Your task to perform on an android device: Go to wifi settings Image 0: 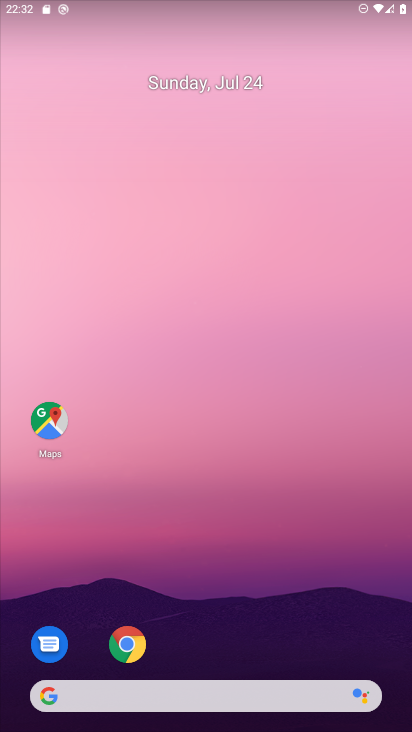
Step 0: drag from (373, 640) to (344, 46)
Your task to perform on an android device: Go to wifi settings Image 1: 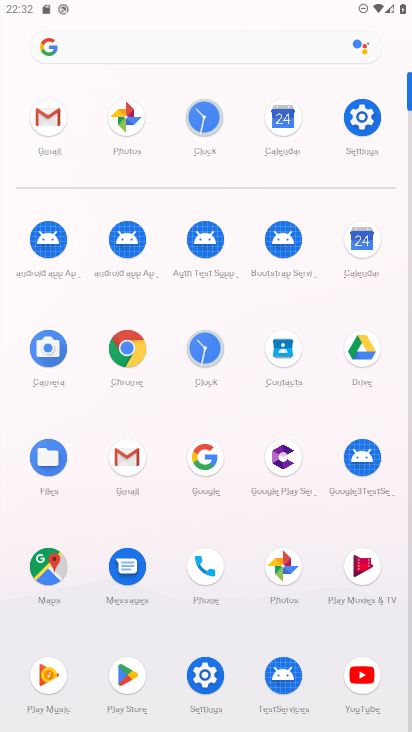
Step 1: click (208, 677)
Your task to perform on an android device: Go to wifi settings Image 2: 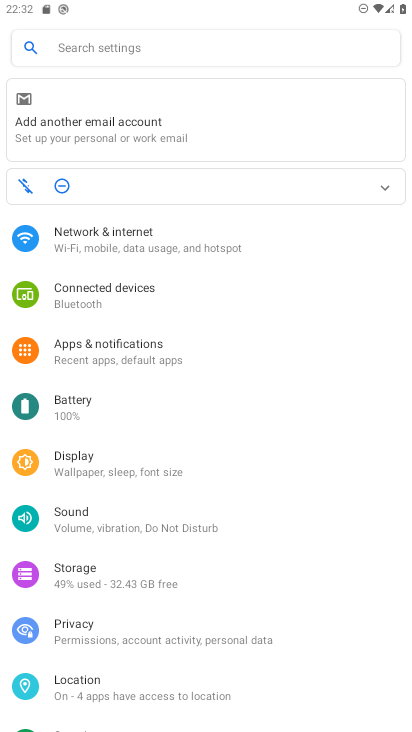
Step 2: click (98, 231)
Your task to perform on an android device: Go to wifi settings Image 3: 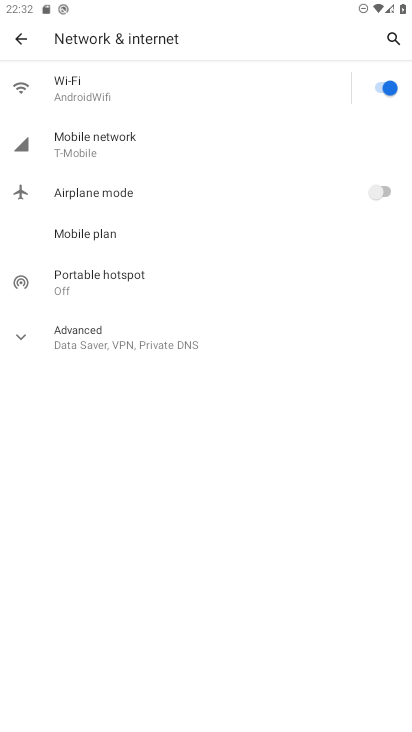
Step 3: click (50, 77)
Your task to perform on an android device: Go to wifi settings Image 4: 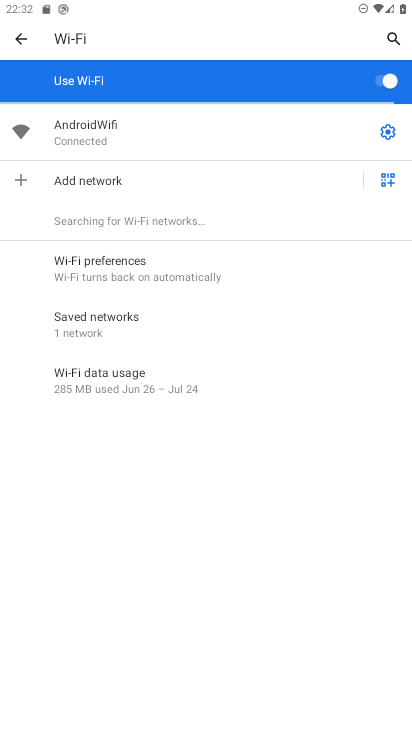
Step 4: click (388, 134)
Your task to perform on an android device: Go to wifi settings Image 5: 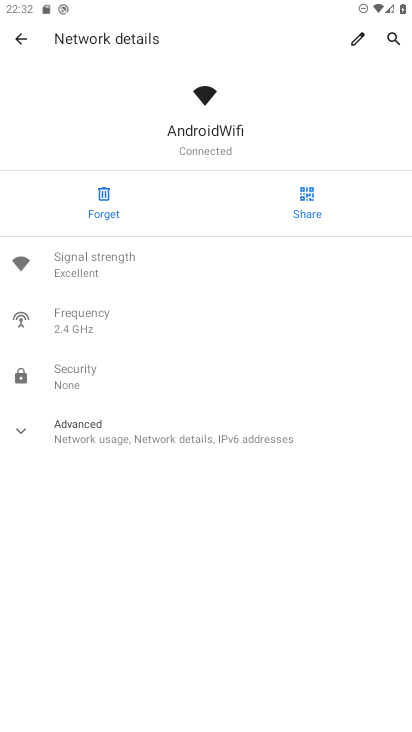
Step 5: click (6, 418)
Your task to perform on an android device: Go to wifi settings Image 6: 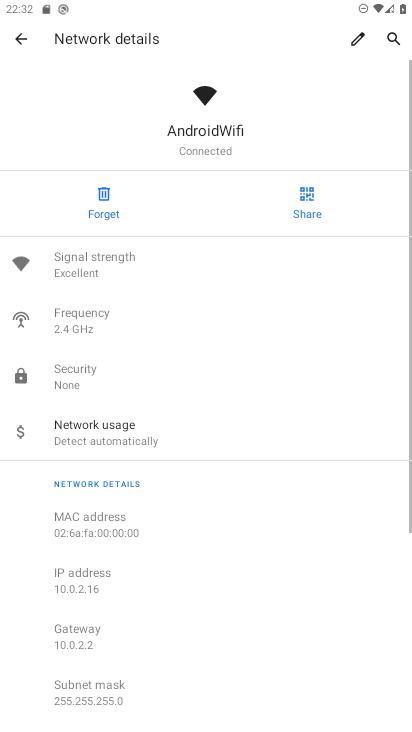
Step 6: task complete